Your task to perform on an android device: move a message to another label in the gmail app Image 0: 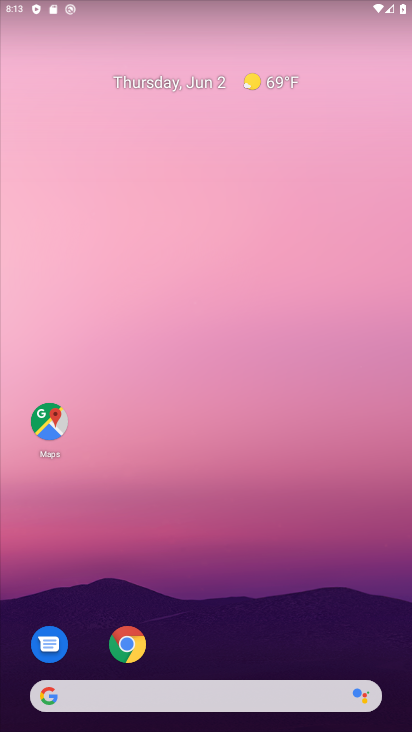
Step 0: drag from (208, 577) to (135, 50)
Your task to perform on an android device: move a message to another label in the gmail app Image 1: 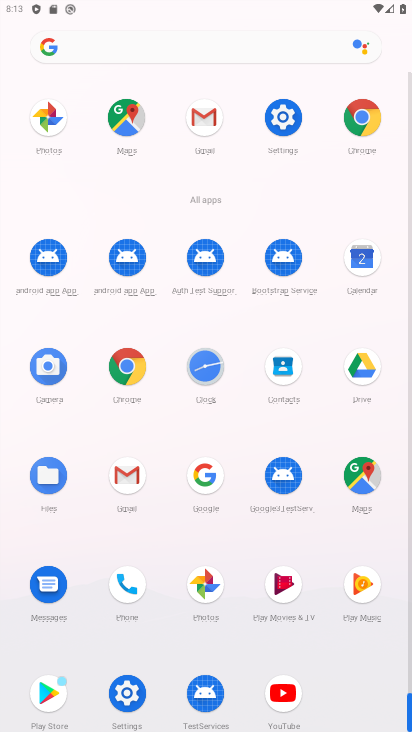
Step 1: click (125, 469)
Your task to perform on an android device: move a message to another label in the gmail app Image 2: 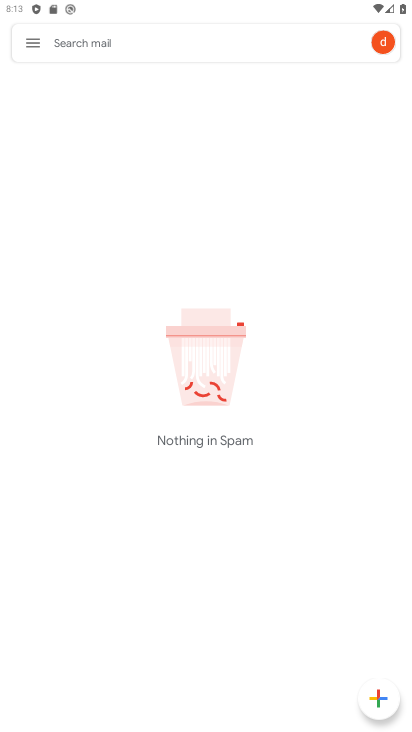
Step 2: click (39, 45)
Your task to perform on an android device: move a message to another label in the gmail app Image 3: 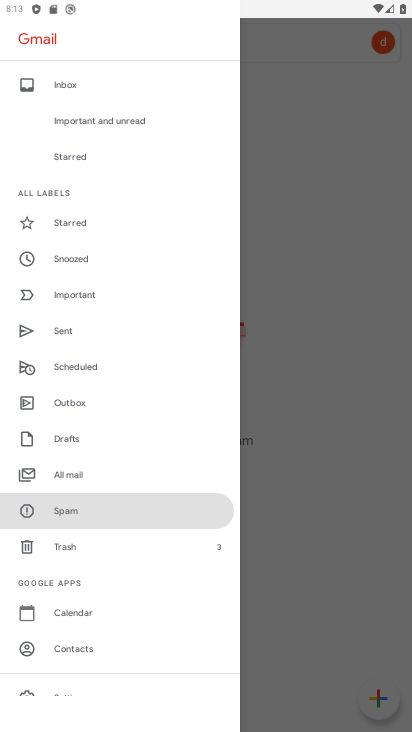
Step 3: click (75, 252)
Your task to perform on an android device: move a message to another label in the gmail app Image 4: 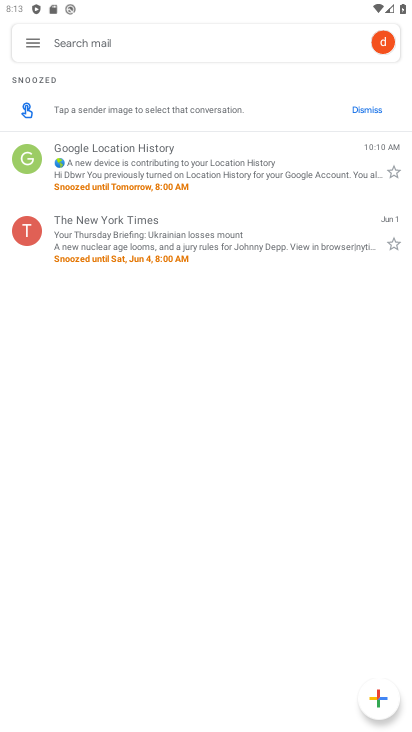
Step 4: click (257, 159)
Your task to perform on an android device: move a message to another label in the gmail app Image 5: 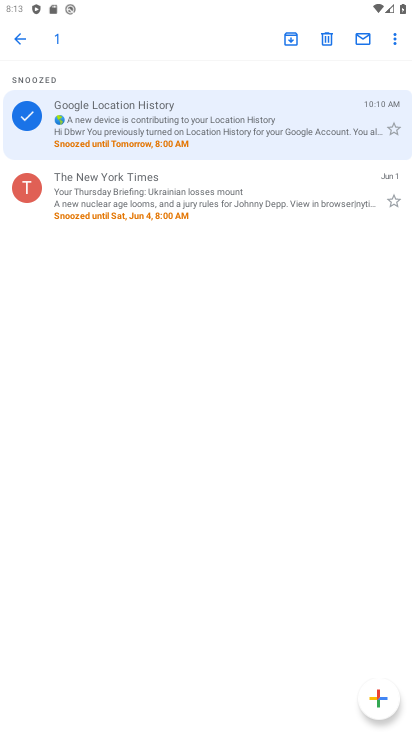
Step 5: click (29, 114)
Your task to perform on an android device: move a message to another label in the gmail app Image 6: 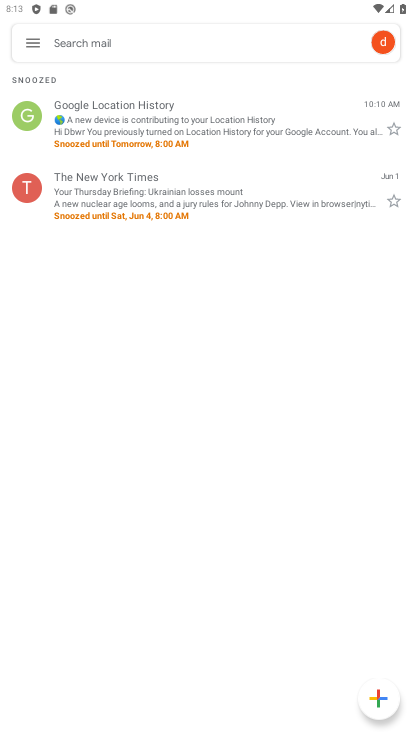
Step 6: click (264, 108)
Your task to perform on an android device: move a message to another label in the gmail app Image 7: 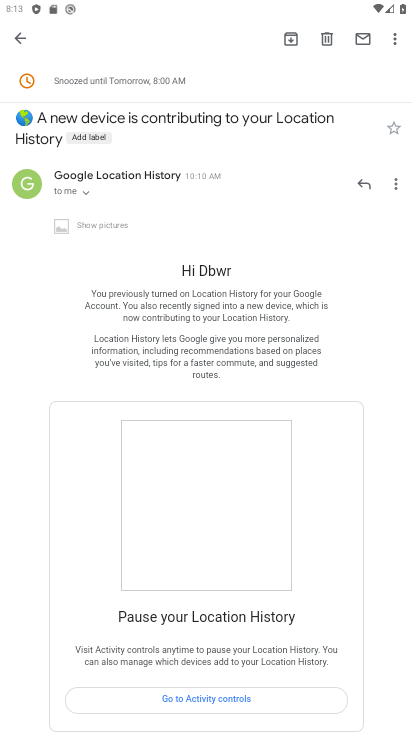
Step 7: click (86, 136)
Your task to perform on an android device: move a message to another label in the gmail app Image 8: 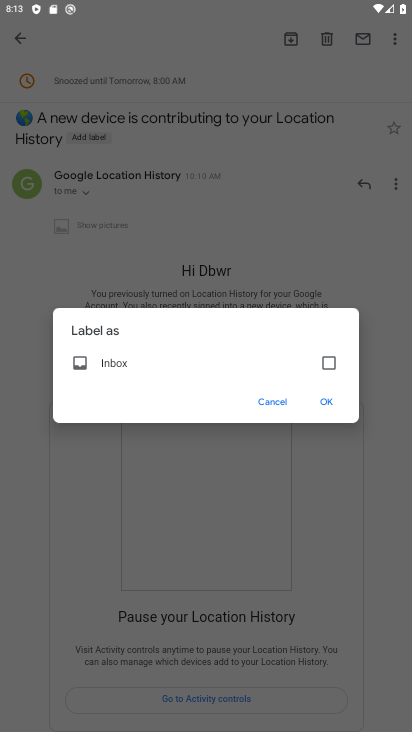
Step 8: click (324, 363)
Your task to perform on an android device: move a message to another label in the gmail app Image 9: 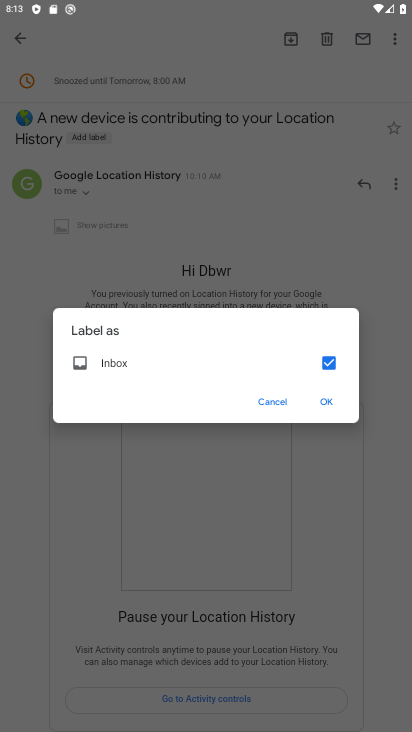
Step 9: click (320, 400)
Your task to perform on an android device: move a message to another label in the gmail app Image 10: 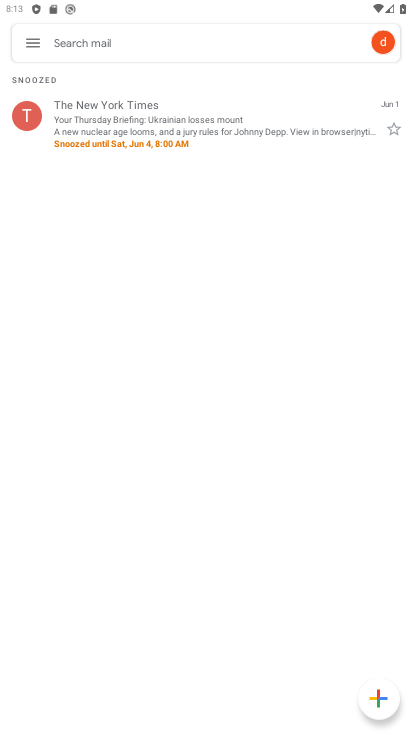
Step 10: task complete